Your task to perform on an android device: See recent photos Image 0: 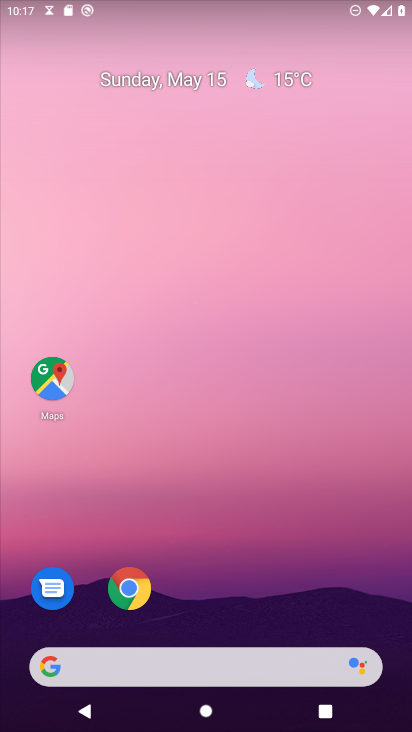
Step 0: drag from (195, 609) to (324, 86)
Your task to perform on an android device: See recent photos Image 1: 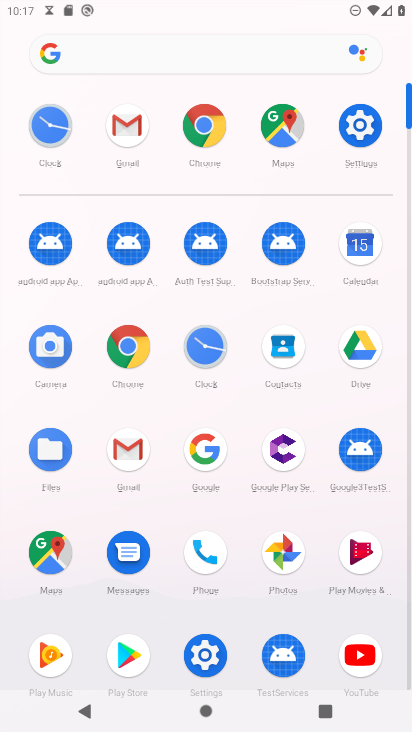
Step 1: click (301, 567)
Your task to perform on an android device: See recent photos Image 2: 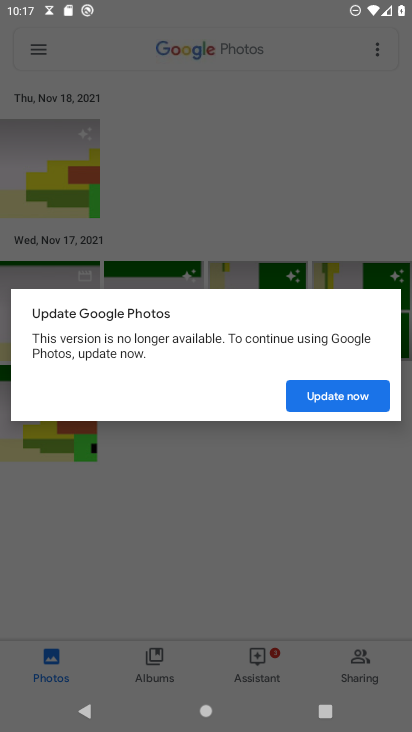
Step 2: click (348, 401)
Your task to perform on an android device: See recent photos Image 3: 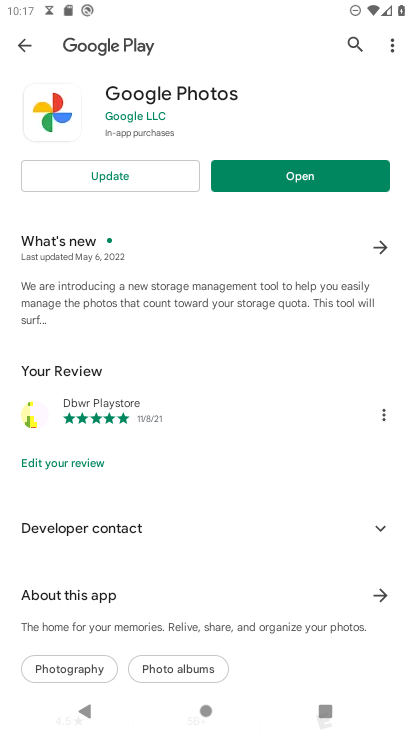
Step 3: click (308, 177)
Your task to perform on an android device: See recent photos Image 4: 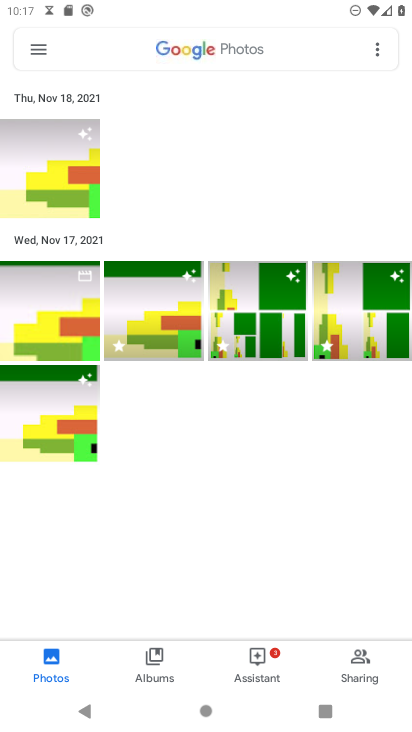
Step 4: click (49, 319)
Your task to perform on an android device: See recent photos Image 5: 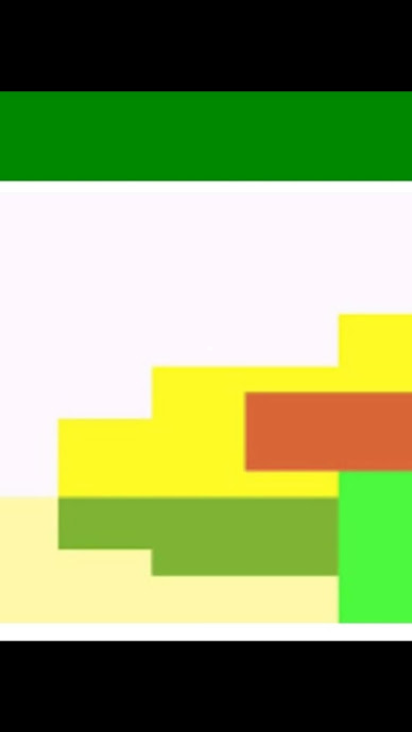
Step 5: task complete